Your task to perform on an android device: Clear all items from cart on ebay. Add usb-c to the cart on ebay, then select checkout. Image 0: 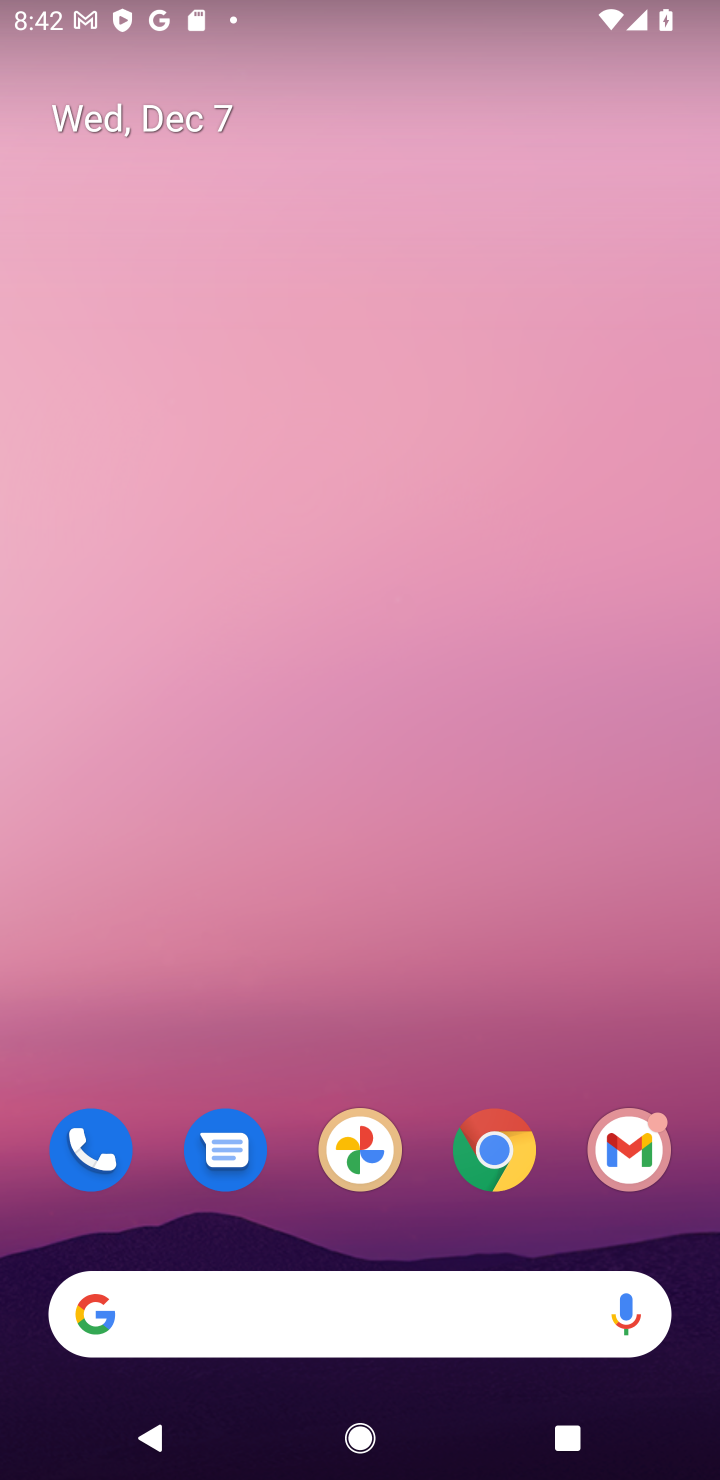
Step 0: click (496, 1164)
Your task to perform on an android device: Clear all items from cart on ebay. Add usb-c to the cart on ebay, then select checkout. Image 1: 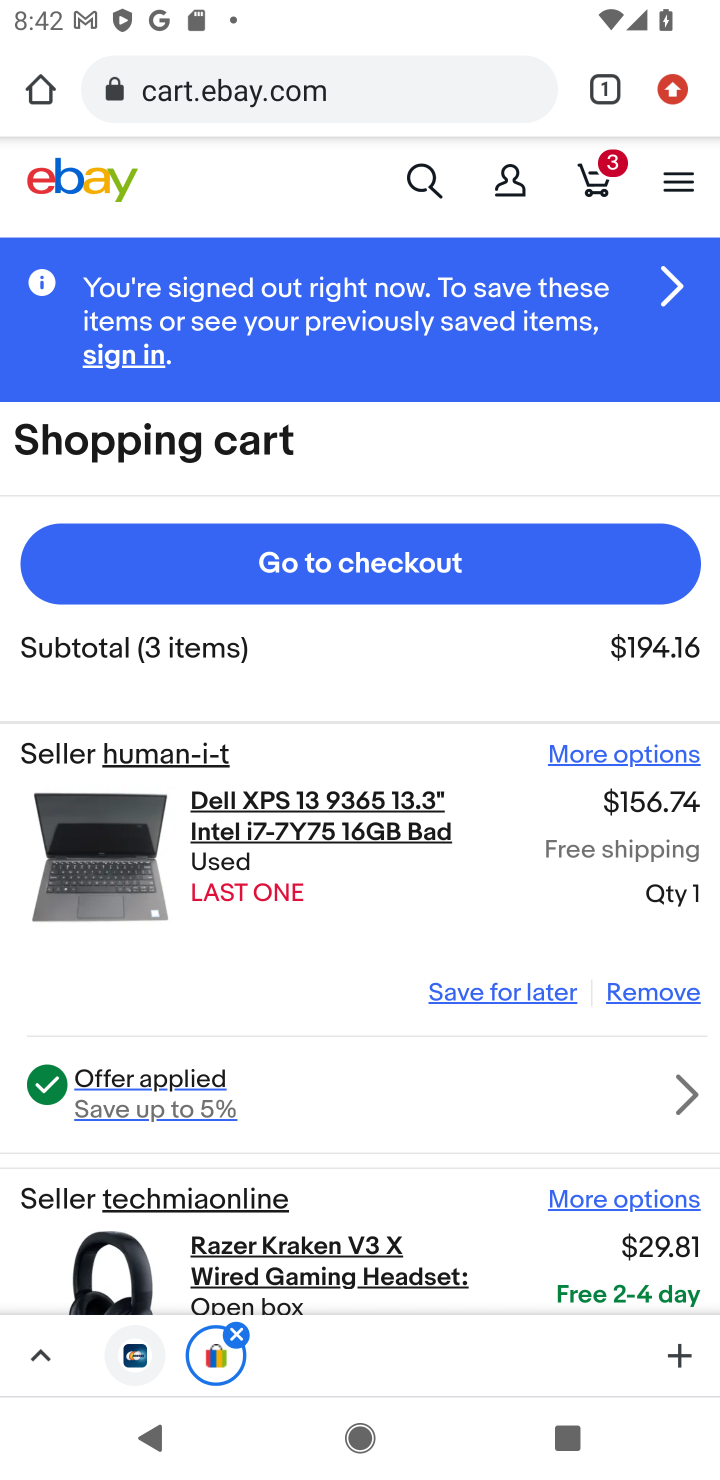
Step 1: drag from (533, 914) to (515, 746)
Your task to perform on an android device: Clear all items from cart on ebay. Add usb-c to the cart on ebay, then select checkout. Image 2: 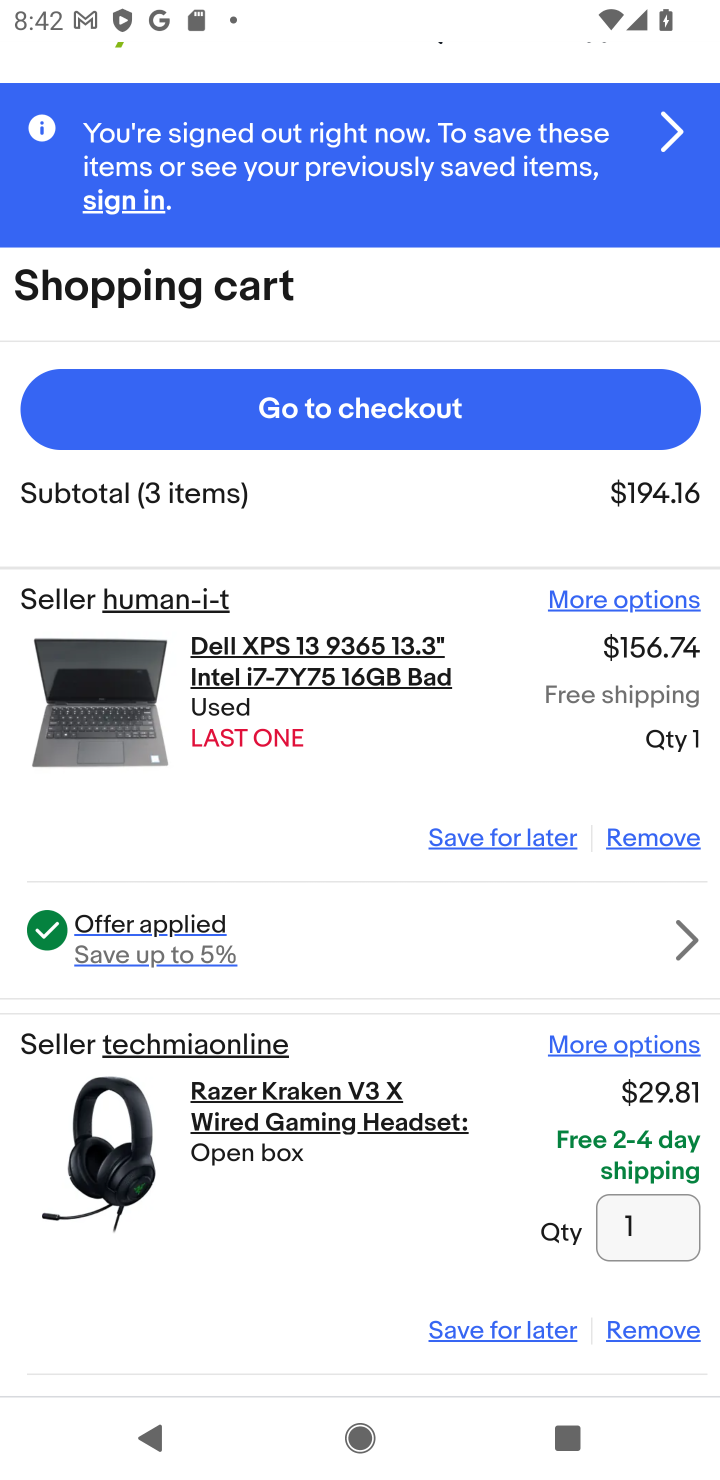
Step 2: click (650, 840)
Your task to perform on an android device: Clear all items from cart on ebay. Add usb-c to the cart on ebay, then select checkout. Image 3: 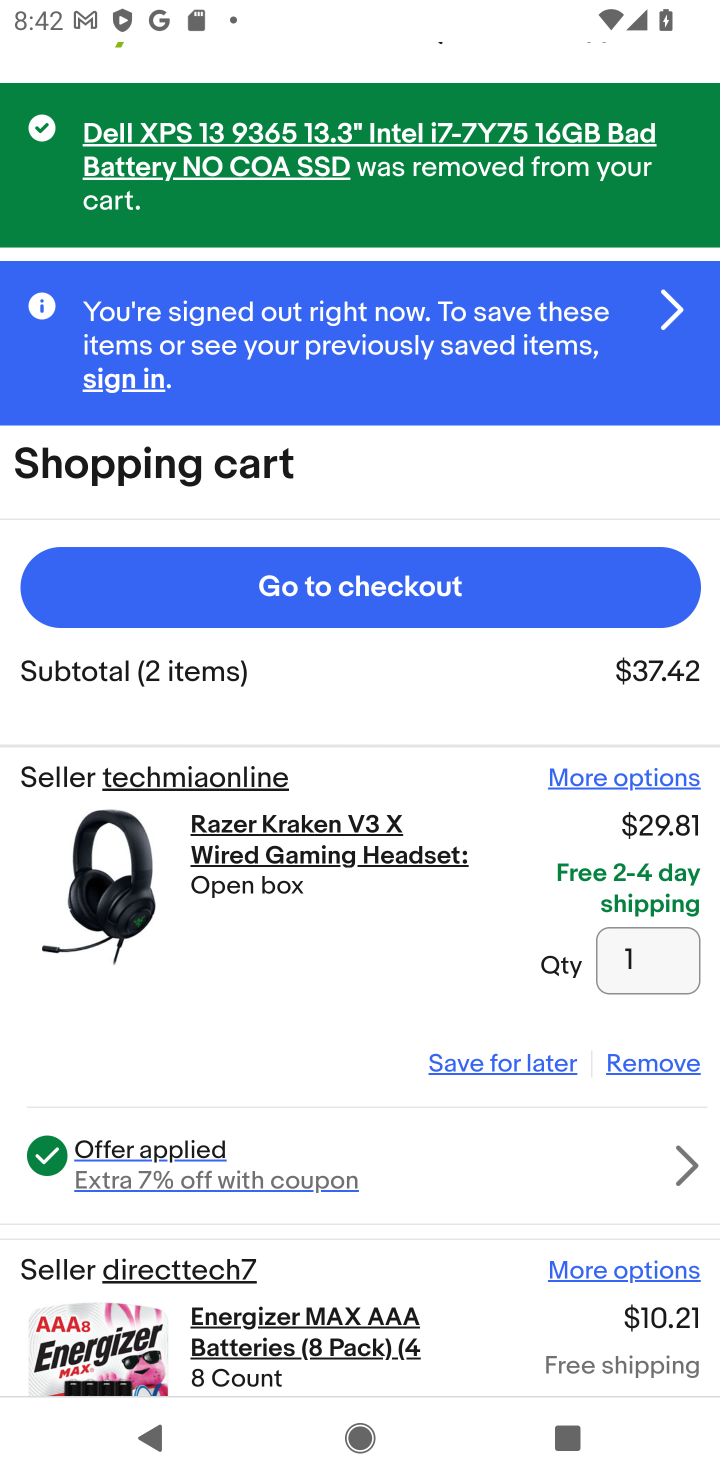
Step 3: click (629, 1072)
Your task to perform on an android device: Clear all items from cart on ebay. Add usb-c to the cart on ebay, then select checkout. Image 4: 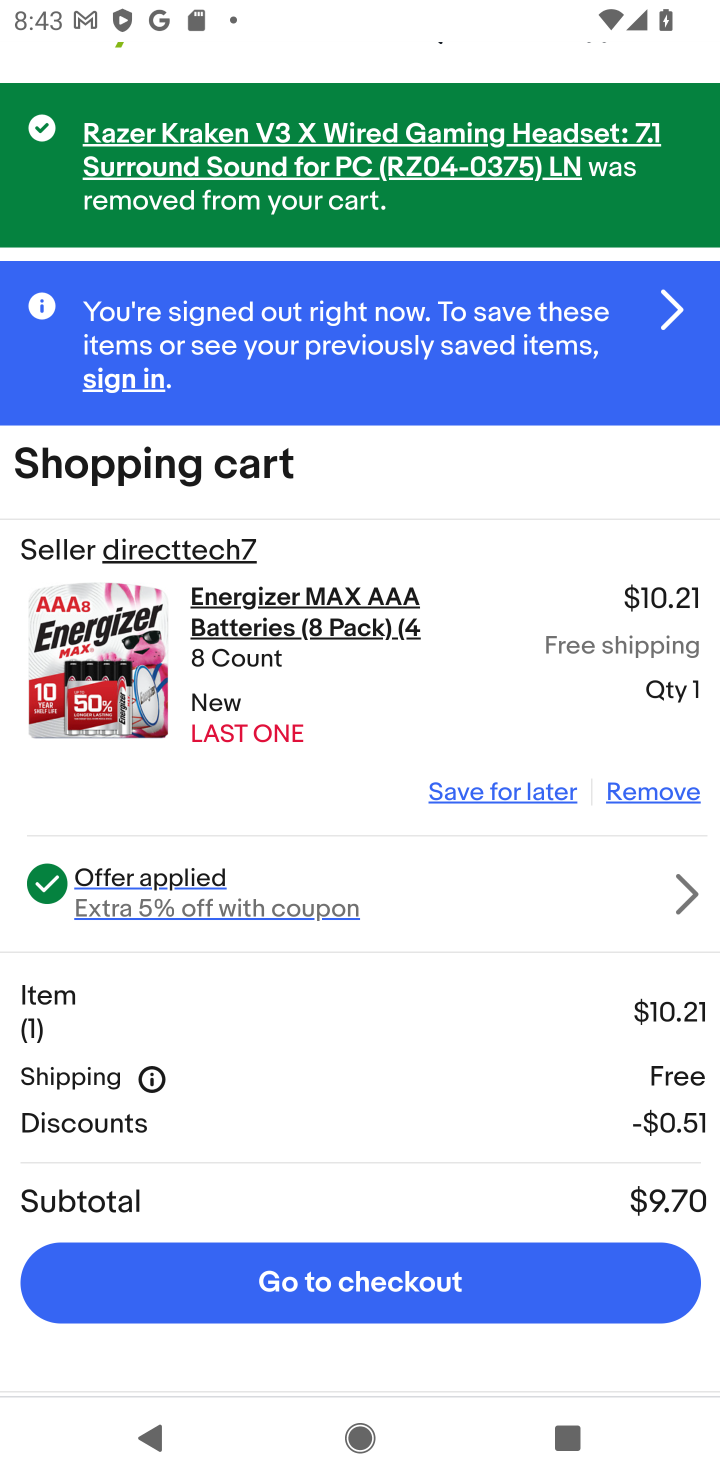
Step 4: click (636, 787)
Your task to perform on an android device: Clear all items from cart on ebay. Add usb-c to the cart on ebay, then select checkout. Image 5: 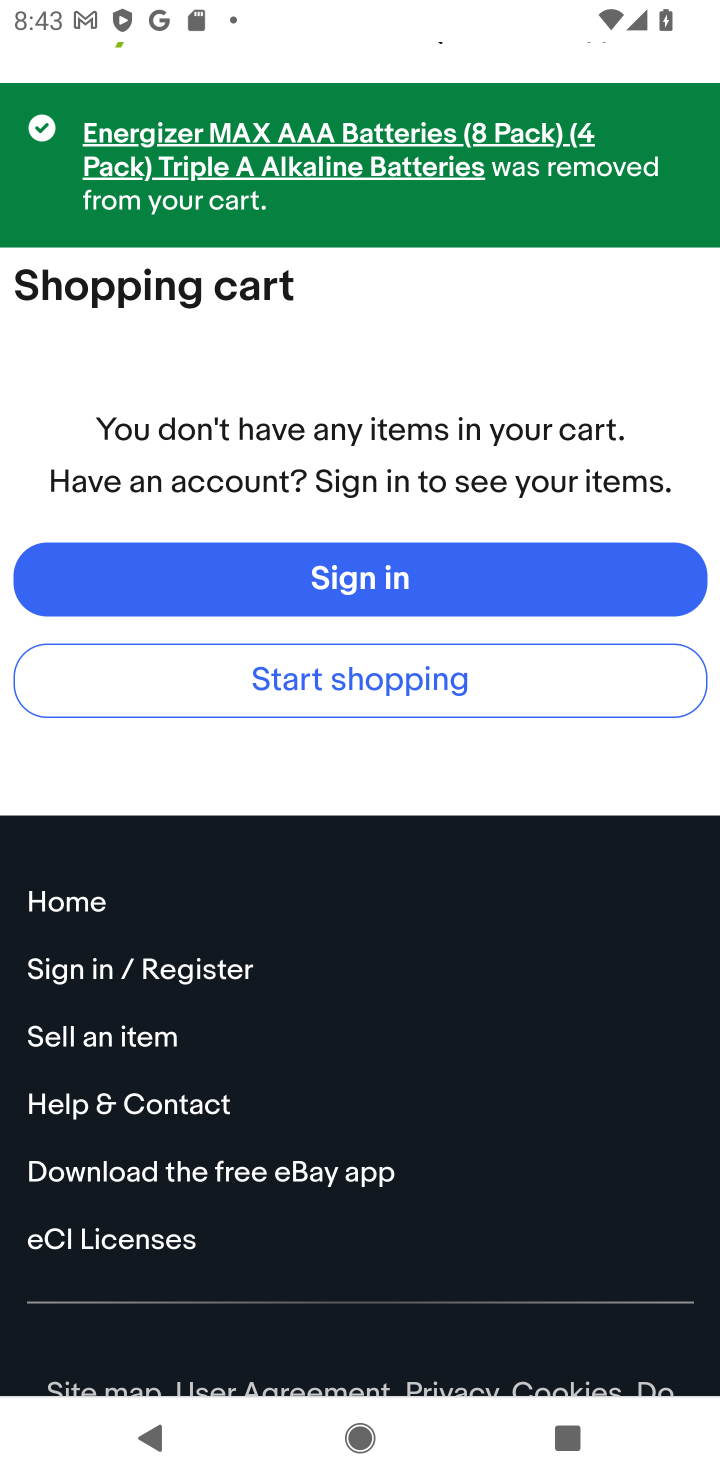
Step 5: drag from (350, 428) to (412, 1120)
Your task to perform on an android device: Clear all items from cart on ebay. Add usb-c to the cart on ebay, then select checkout. Image 6: 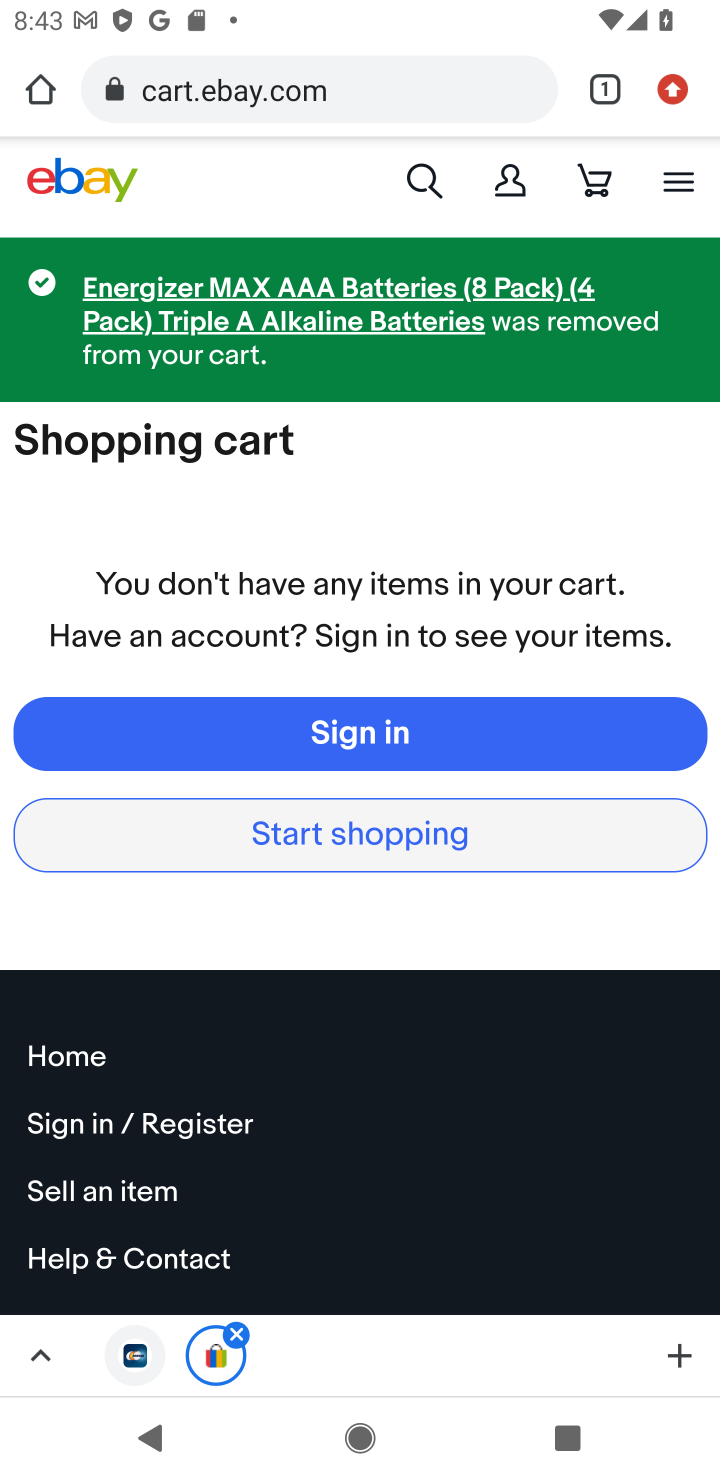
Step 6: click (431, 169)
Your task to perform on an android device: Clear all items from cart on ebay. Add usb-c to the cart on ebay, then select checkout. Image 7: 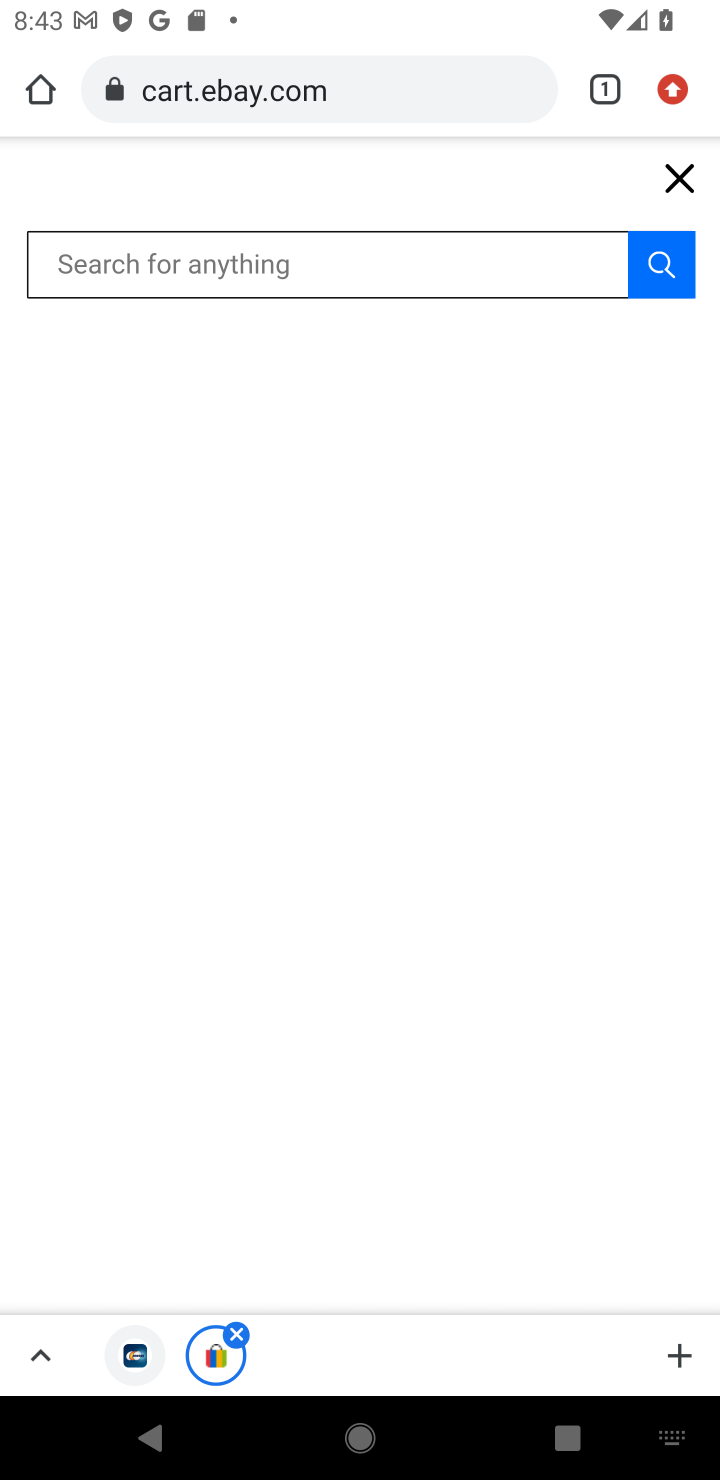
Step 7: type "usb-c"
Your task to perform on an android device: Clear all items from cart on ebay. Add usb-c to the cart on ebay, then select checkout. Image 8: 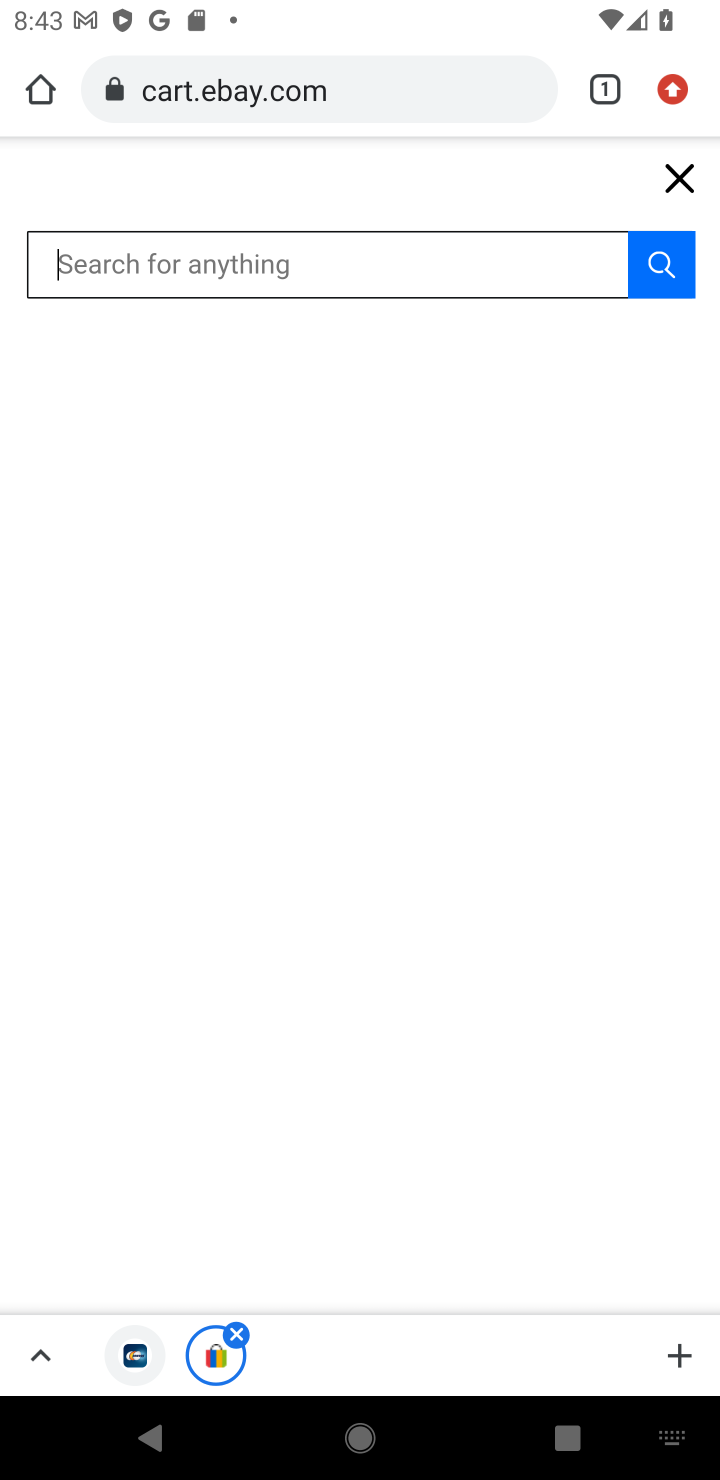
Step 8: press enter
Your task to perform on an android device: Clear all items from cart on ebay. Add usb-c to the cart on ebay, then select checkout. Image 9: 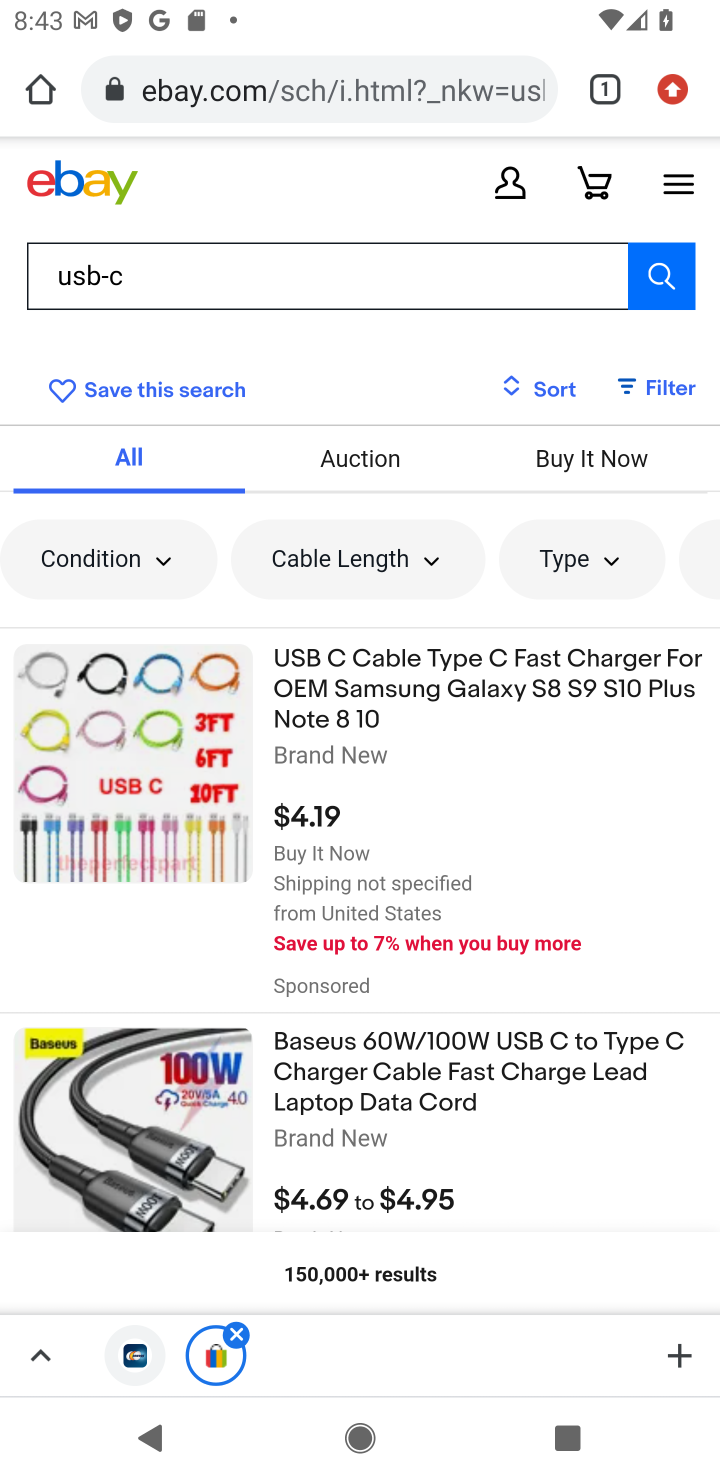
Step 9: click (485, 687)
Your task to perform on an android device: Clear all items from cart on ebay. Add usb-c to the cart on ebay, then select checkout. Image 10: 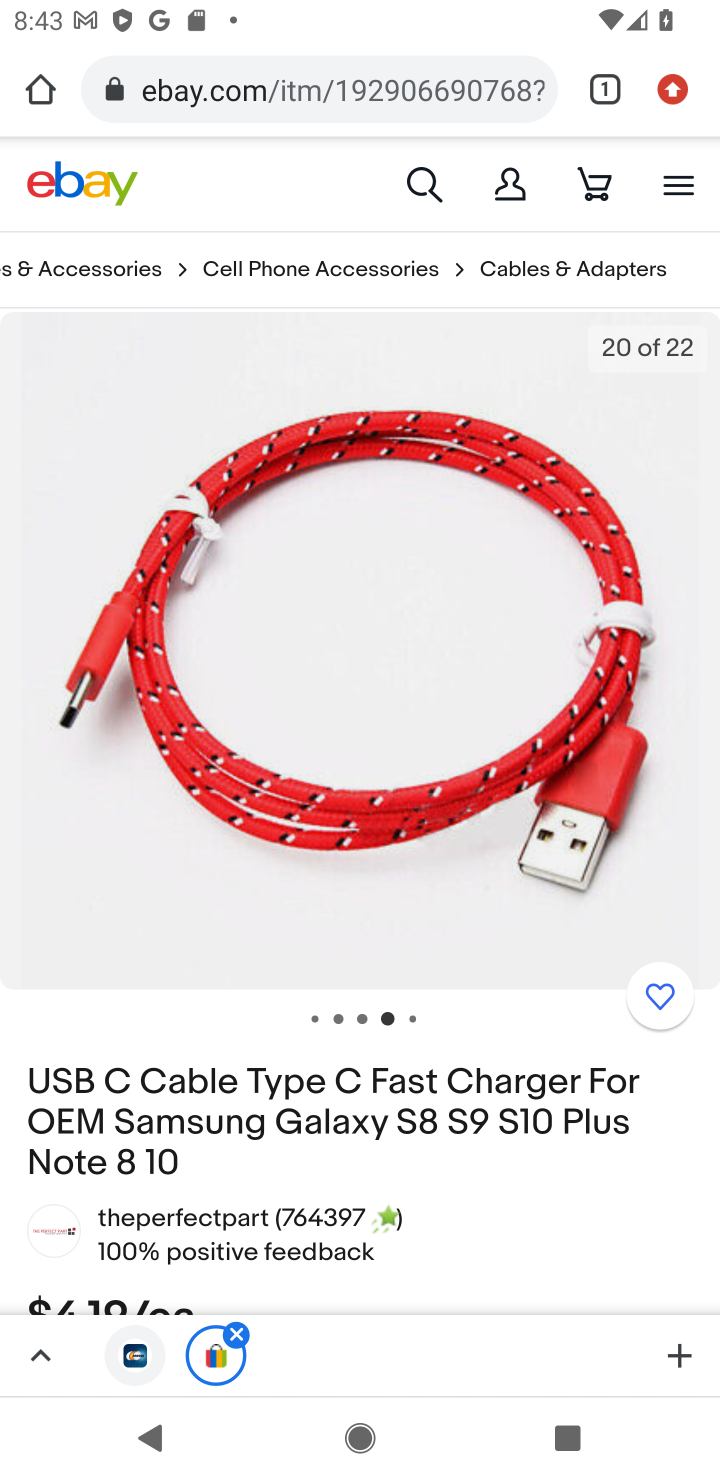
Step 10: drag from (645, 1073) to (633, 571)
Your task to perform on an android device: Clear all items from cart on ebay. Add usb-c to the cart on ebay, then select checkout. Image 11: 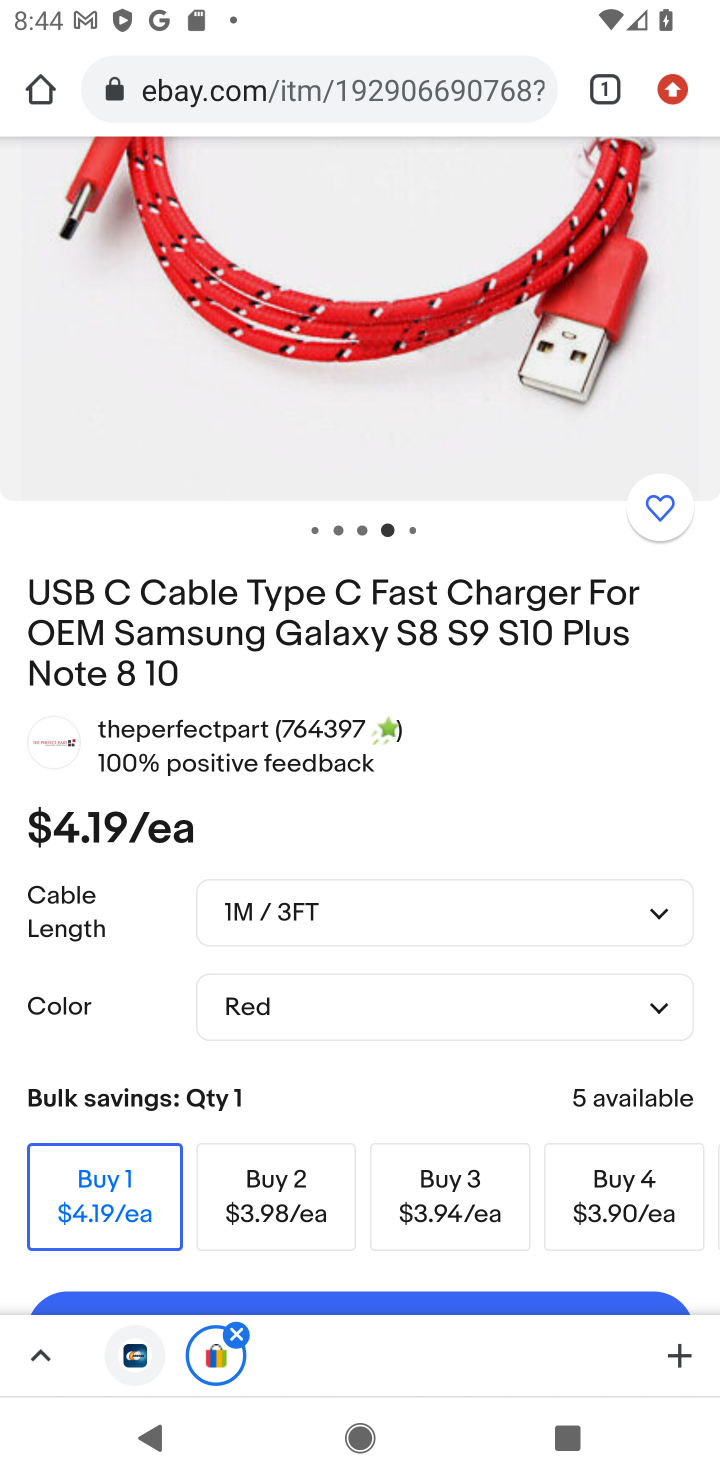
Step 11: drag from (387, 1098) to (462, 446)
Your task to perform on an android device: Clear all items from cart on ebay. Add usb-c to the cart on ebay, then select checkout. Image 12: 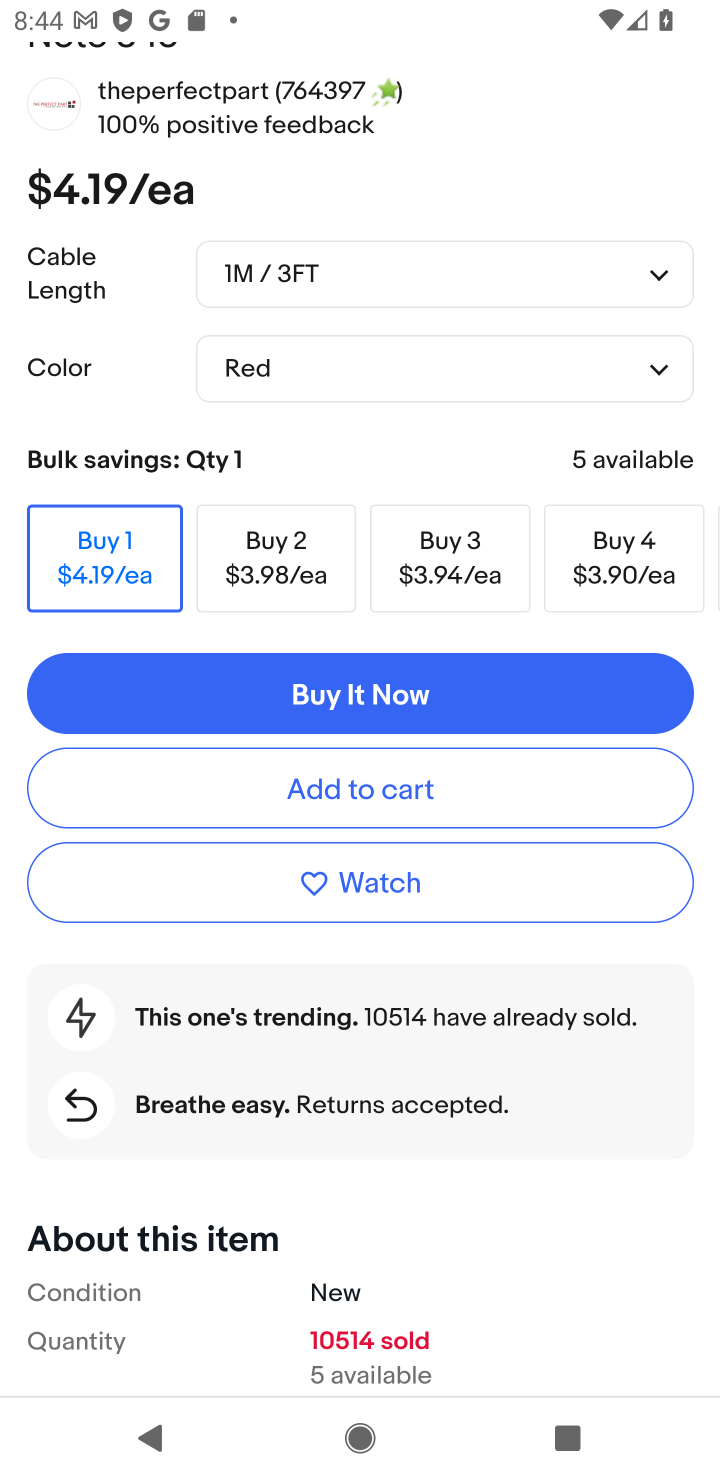
Step 12: click (386, 789)
Your task to perform on an android device: Clear all items from cart on ebay. Add usb-c to the cart on ebay, then select checkout. Image 13: 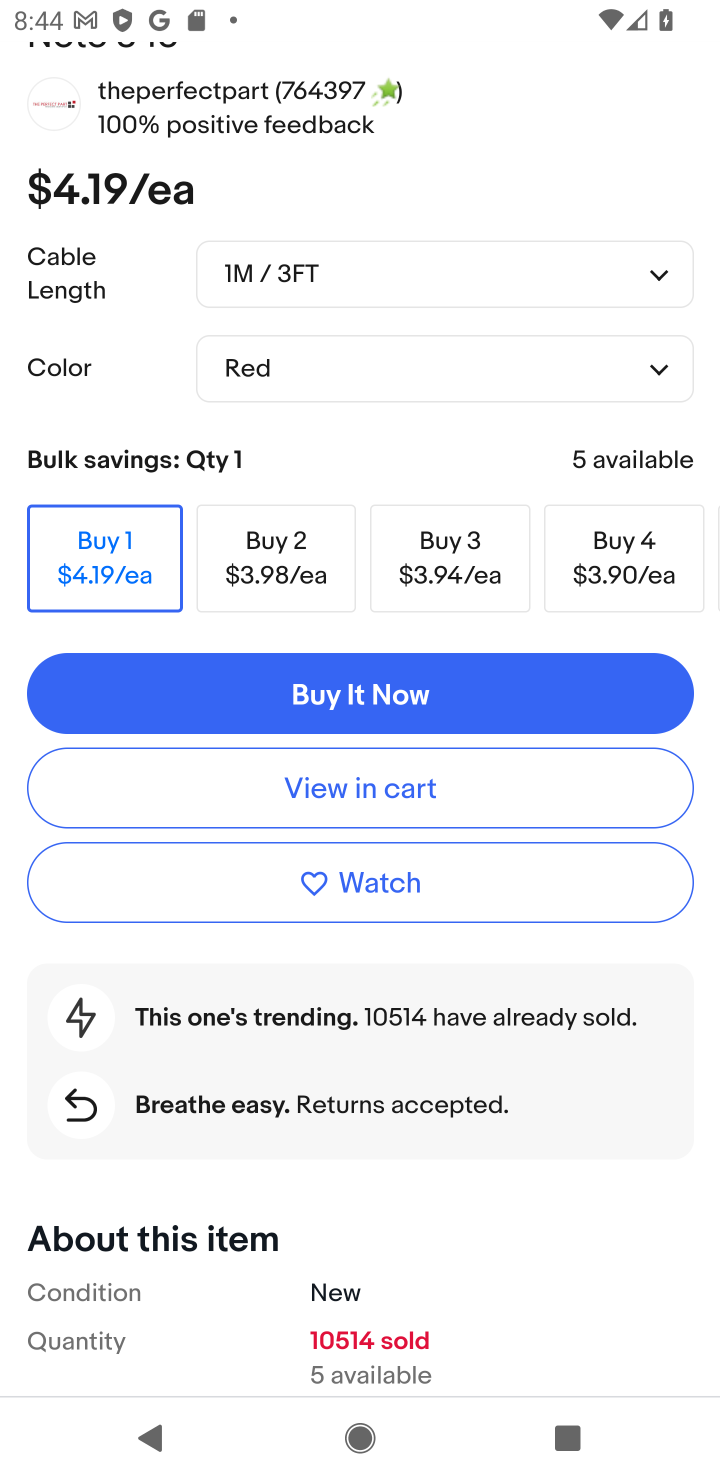
Step 13: click (386, 789)
Your task to perform on an android device: Clear all items from cart on ebay. Add usb-c to the cart on ebay, then select checkout. Image 14: 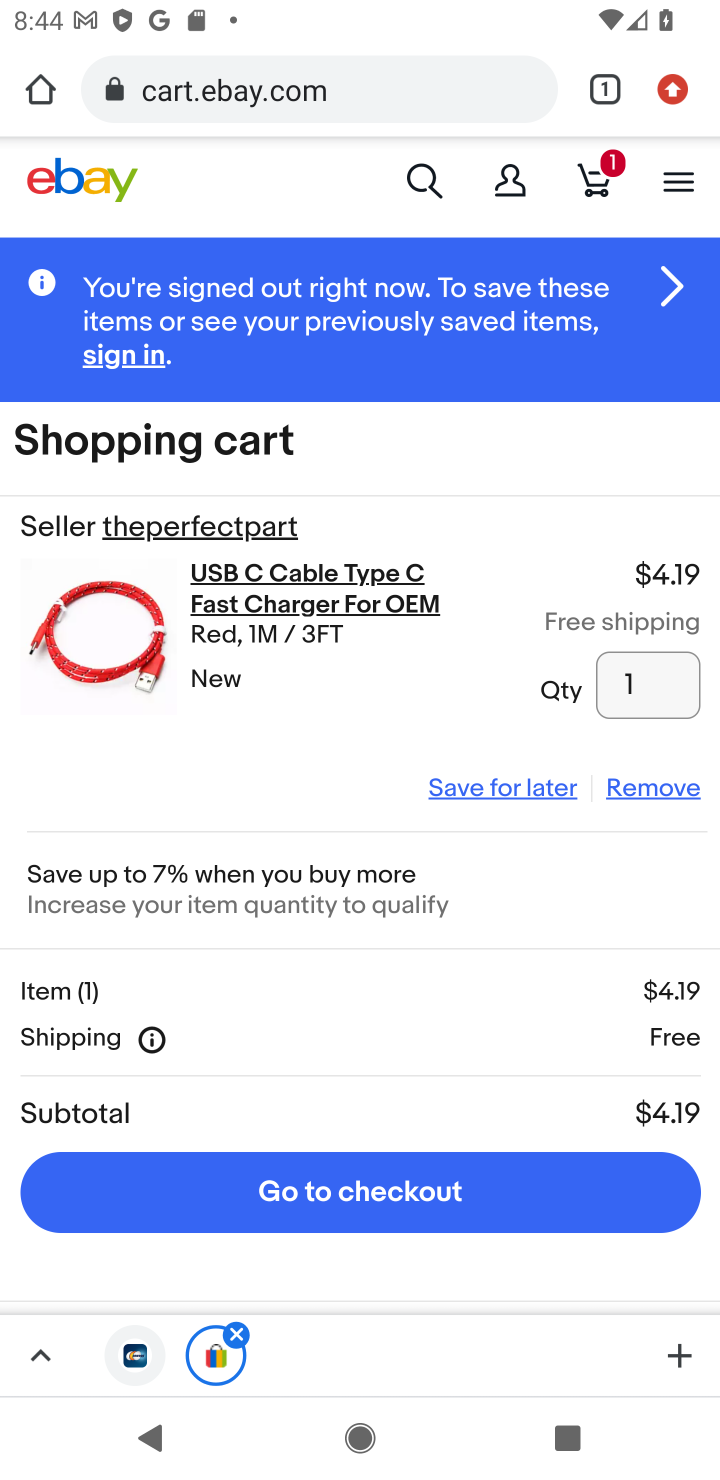
Step 14: click (449, 1196)
Your task to perform on an android device: Clear all items from cart on ebay. Add usb-c to the cart on ebay, then select checkout. Image 15: 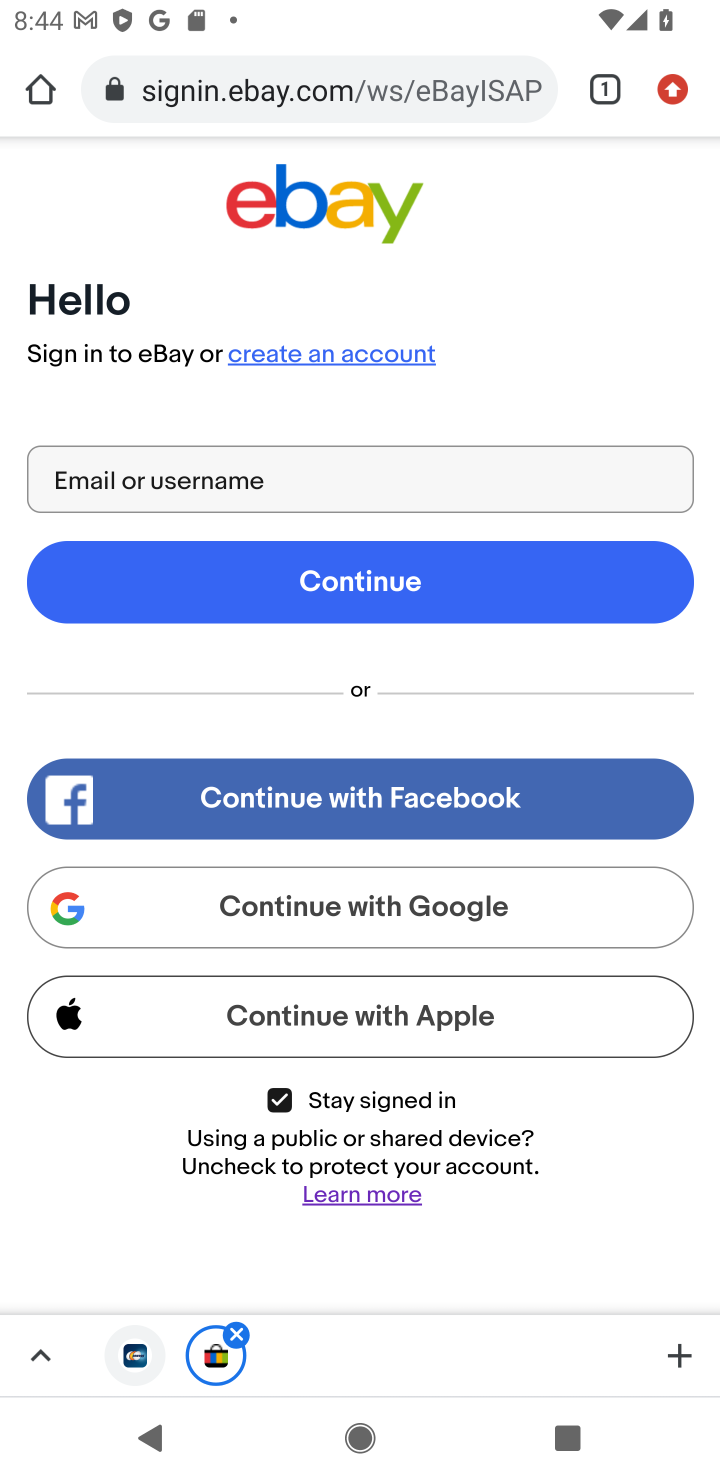
Step 15: task complete